Your task to perform on an android device: Open Google Image 0: 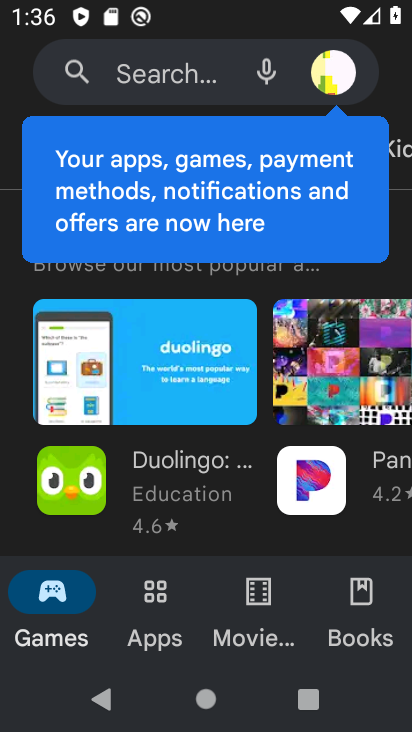
Step 0: press home button
Your task to perform on an android device: Open Google Image 1: 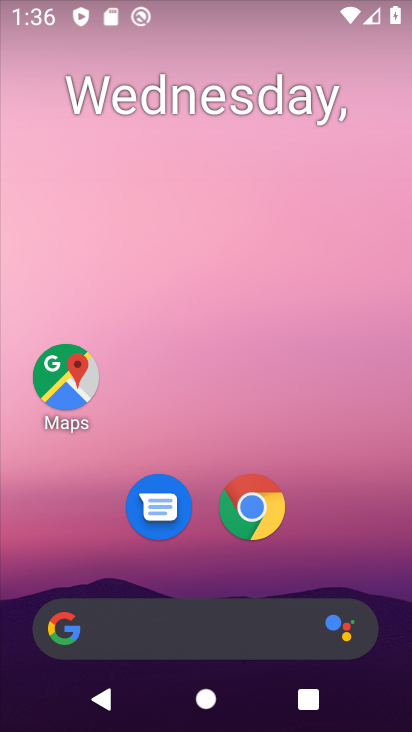
Step 1: drag from (384, 628) to (322, 286)
Your task to perform on an android device: Open Google Image 2: 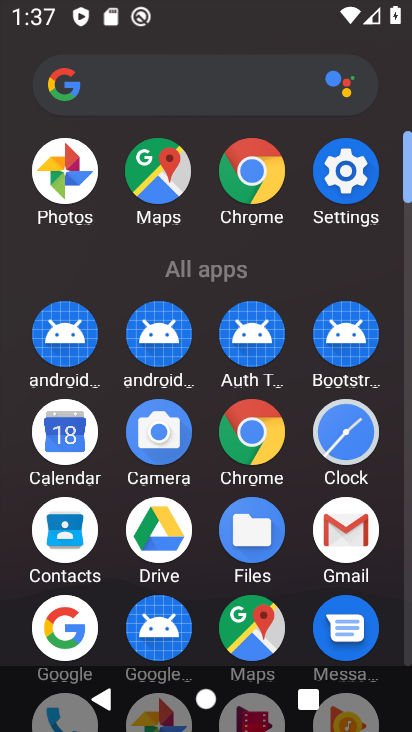
Step 2: click (31, 623)
Your task to perform on an android device: Open Google Image 3: 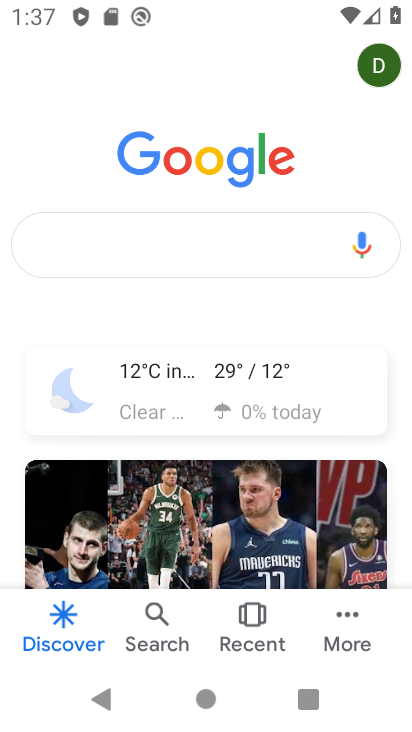
Step 3: task complete